Your task to perform on an android device: make emails show in primary in the gmail app Image 0: 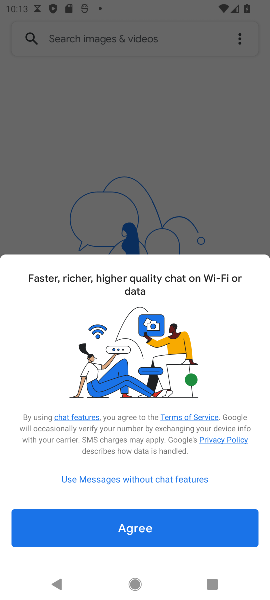
Step 0: press home button
Your task to perform on an android device: make emails show in primary in the gmail app Image 1: 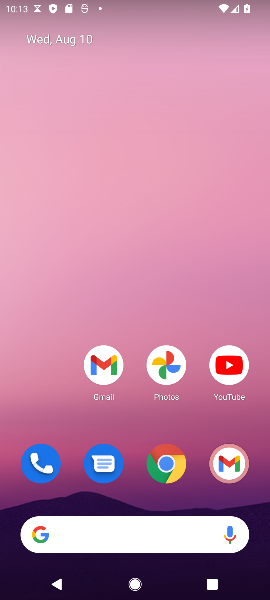
Step 1: click (219, 464)
Your task to perform on an android device: make emails show in primary in the gmail app Image 2: 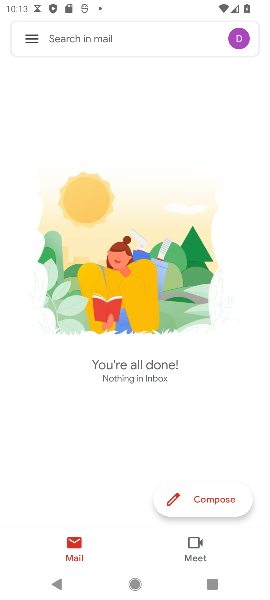
Step 2: click (32, 39)
Your task to perform on an android device: make emails show in primary in the gmail app Image 3: 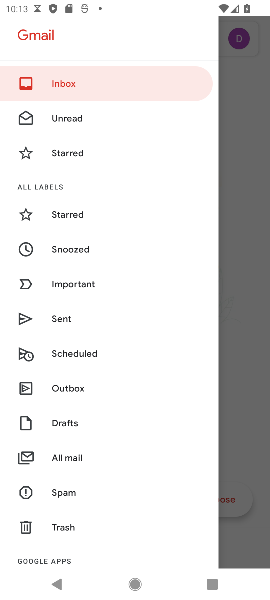
Step 3: click (75, 80)
Your task to perform on an android device: make emails show in primary in the gmail app Image 4: 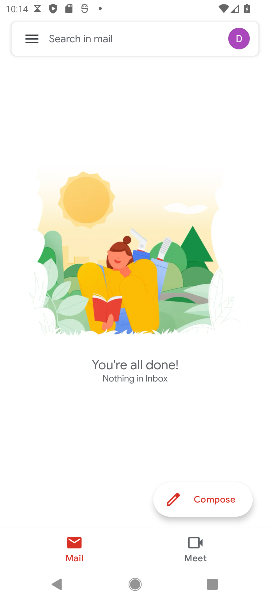
Step 4: task complete